Your task to perform on an android device: delete the emails in spam in the gmail app Image 0: 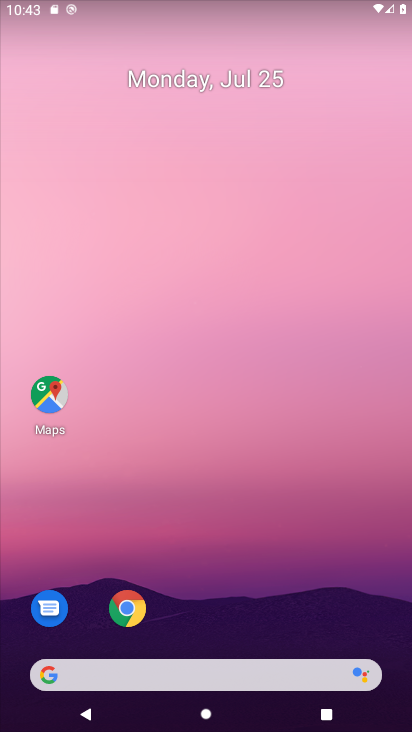
Step 0: drag from (181, 628) to (175, 242)
Your task to perform on an android device: delete the emails in spam in the gmail app Image 1: 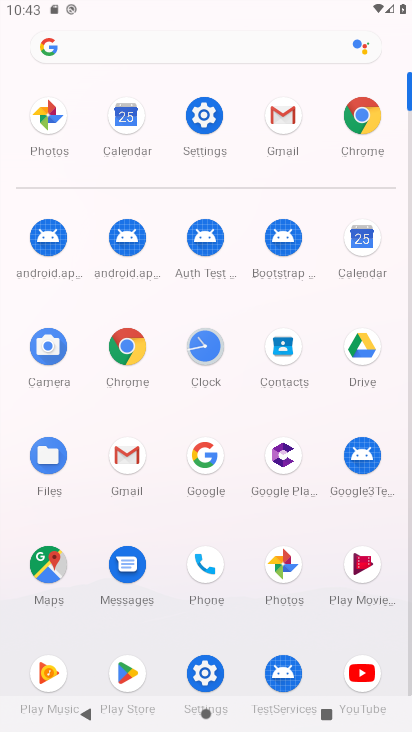
Step 1: click (125, 447)
Your task to perform on an android device: delete the emails in spam in the gmail app Image 2: 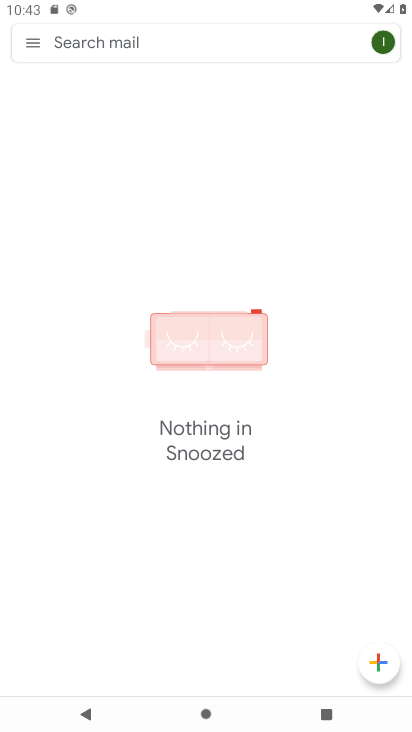
Step 2: click (32, 36)
Your task to perform on an android device: delete the emails in spam in the gmail app Image 3: 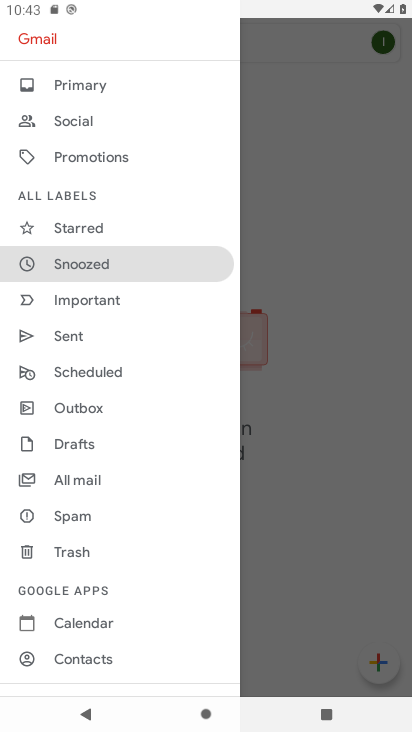
Step 3: click (83, 507)
Your task to perform on an android device: delete the emails in spam in the gmail app Image 4: 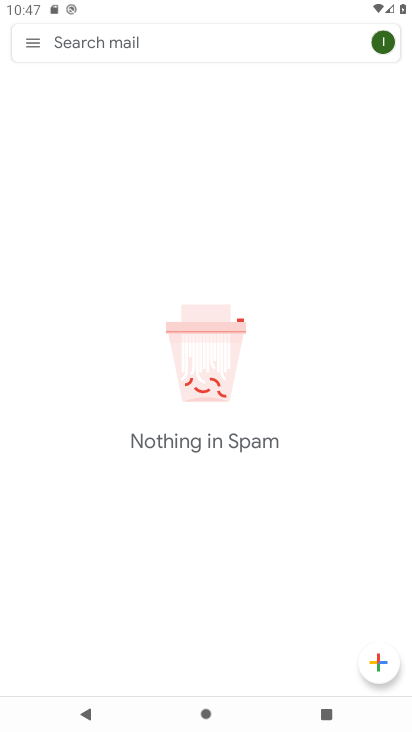
Step 4: task complete